Your task to perform on an android device: Open the phone app and click the voicemail tab. Image 0: 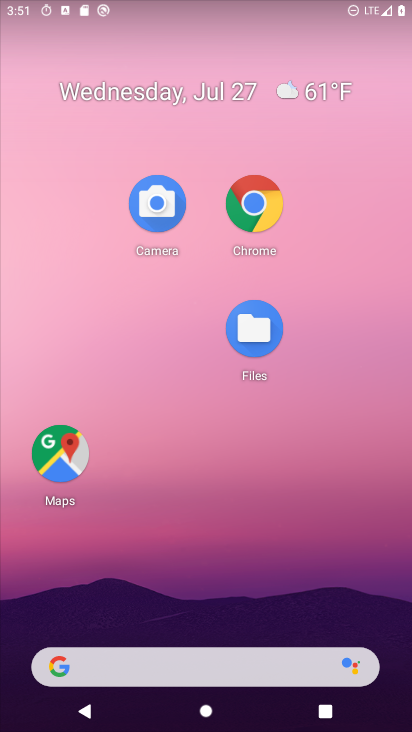
Step 0: drag from (192, 612) to (195, 123)
Your task to perform on an android device: Open the phone app and click the voicemail tab. Image 1: 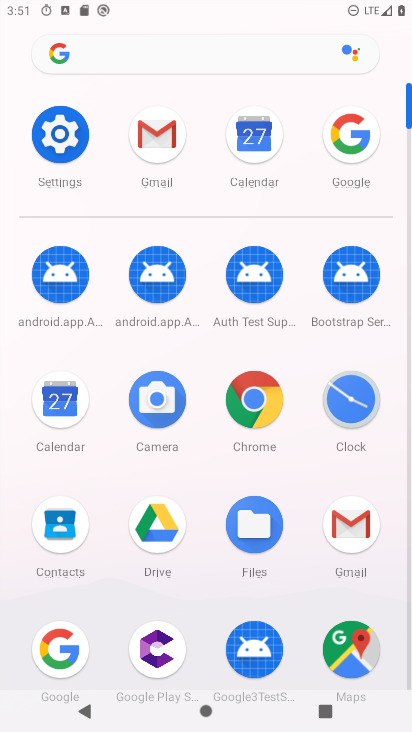
Step 1: drag from (109, 568) to (130, 297)
Your task to perform on an android device: Open the phone app and click the voicemail tab. Image 2: 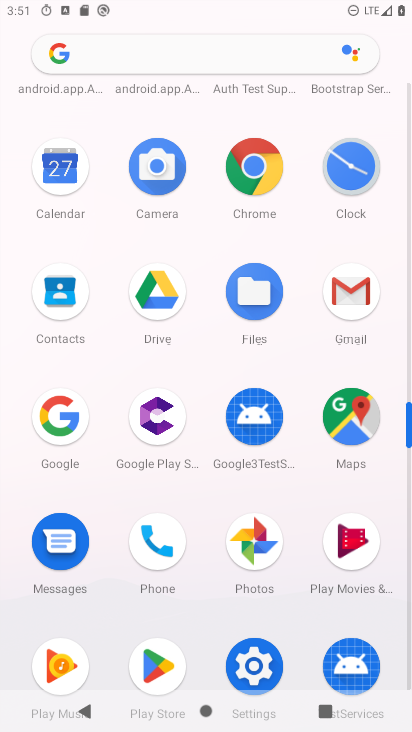
Step 2: click (174, 535)
Your task to perform on an android device: Open the phone app and click the voicemail tab. Image 3: 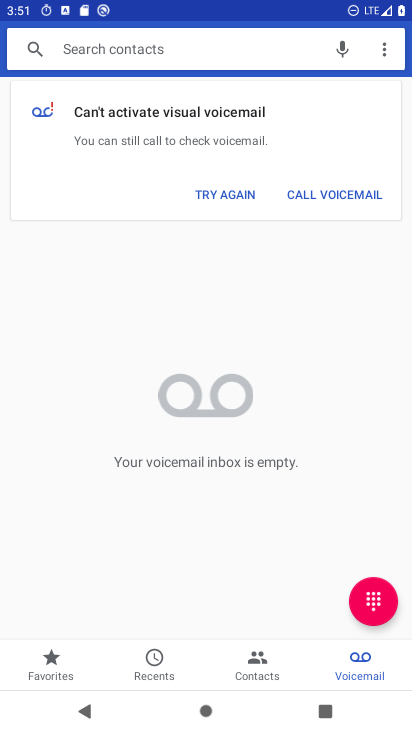
Step 3: click (370, 664)
Your task to perform on an android device: Open the phone app and click the voicemail tab. Image 4: 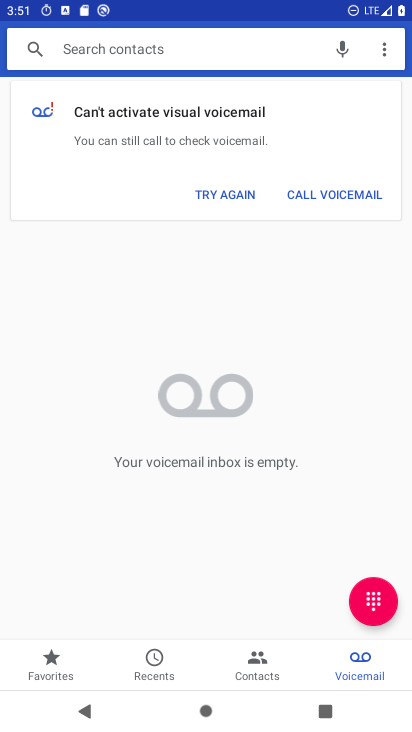
Step 4: task complete